Your task to perform on an android device: open app "Google Photos" Image 0: 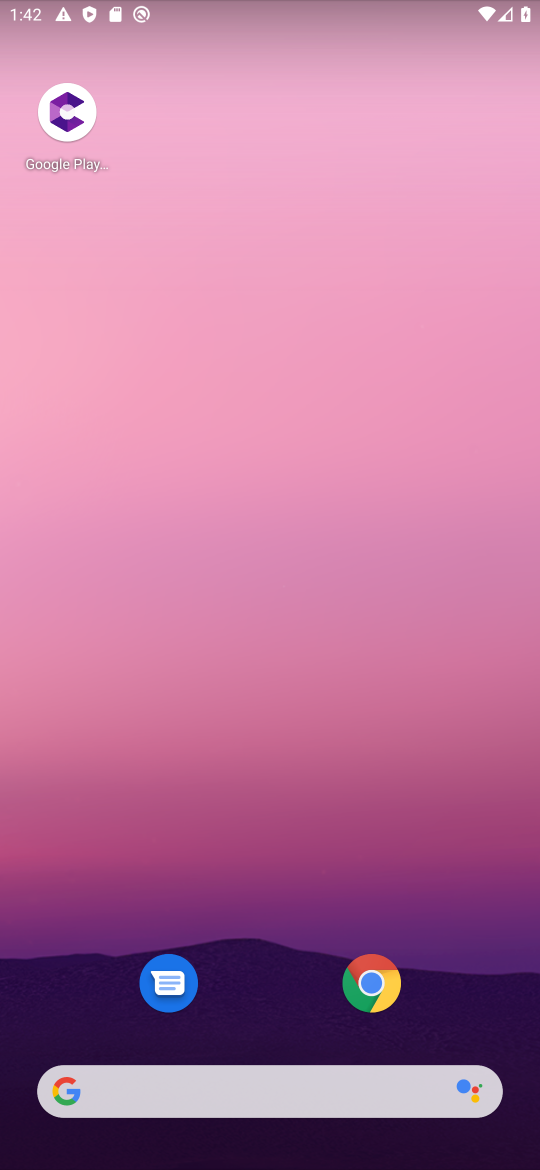
Step 0: drag from (469, 968) to (297, 8)
Your task to perform on an android device: open app "Google Photos" Image 1: 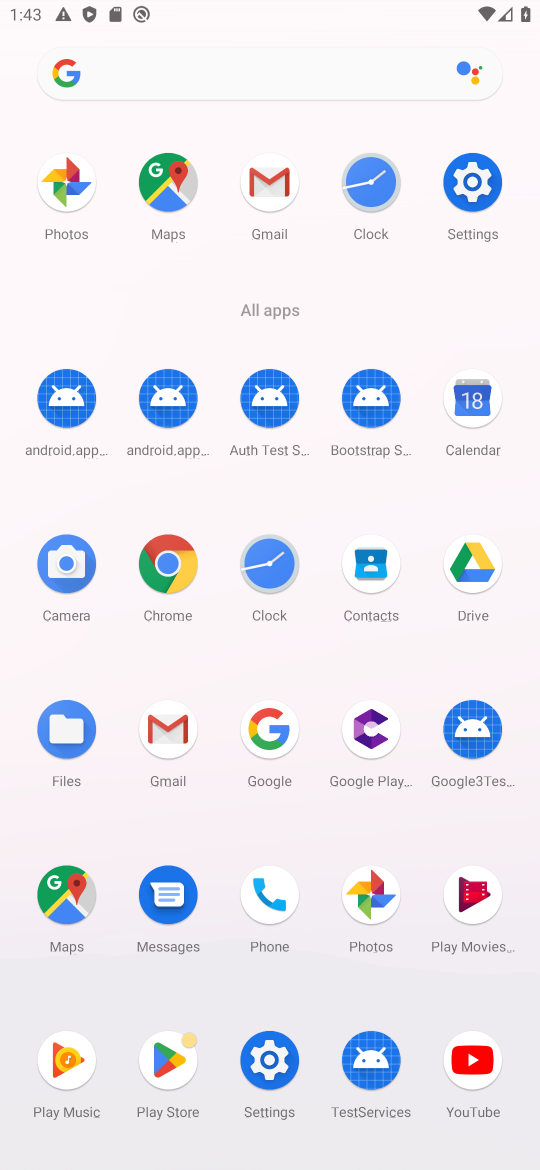
Step 1: click (367, 900)
Your task to perform on an android device: open app "Google Photos" Image 2: 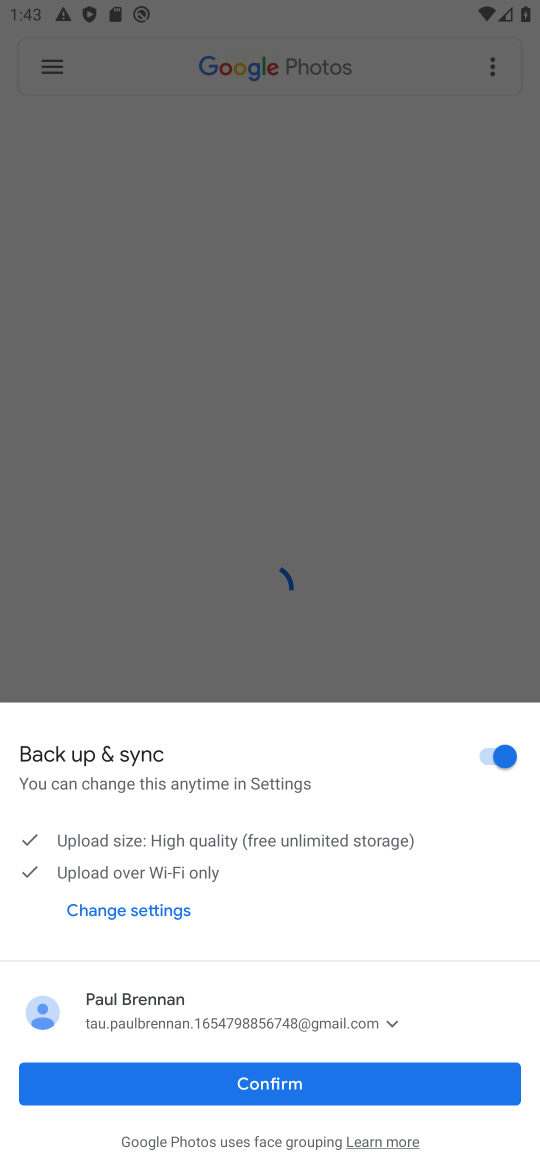
Step 2: click (376, 1086)
Your task to perform on an android device: open app "Google Photos" Image 3: 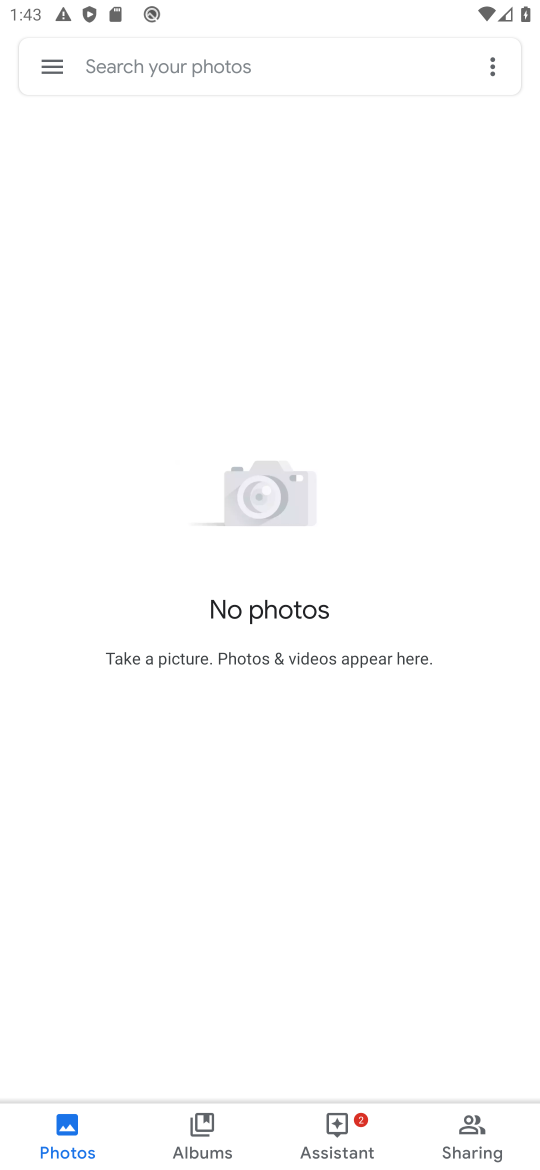
Step 3: task complete